Your task to perform on an android device: Open settings Image 0: 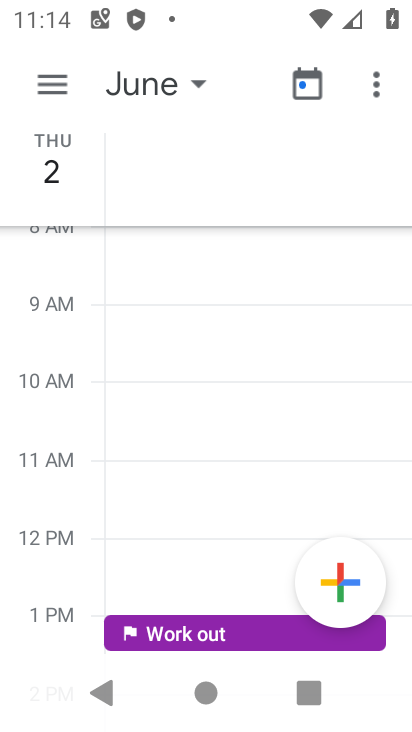
Step 0: press home button
Your task to perform on an android device: Open settings Image 1: 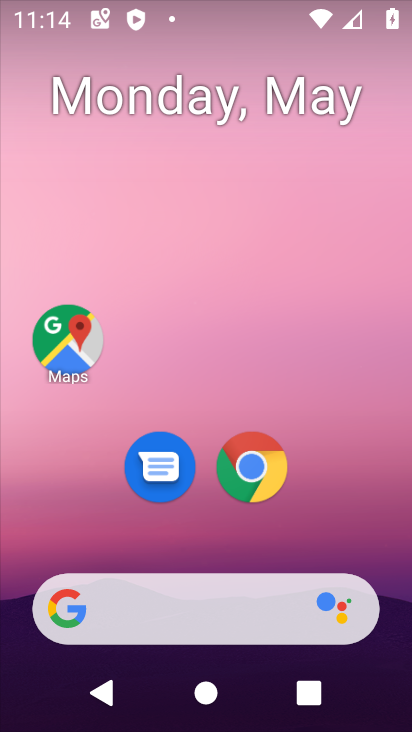
Step 1: drag from (225, 546) to (270, 7)
Your task to perform on an android device: Open settings Image 2: 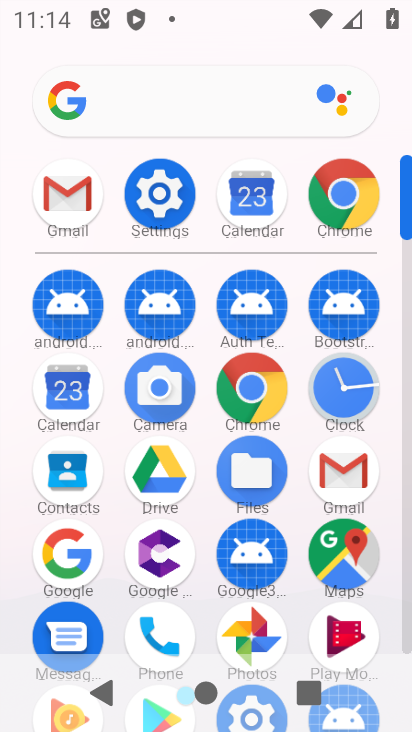
Step 2: click (157, 195)
Your task to perform on an android device: Open settings Image 3: 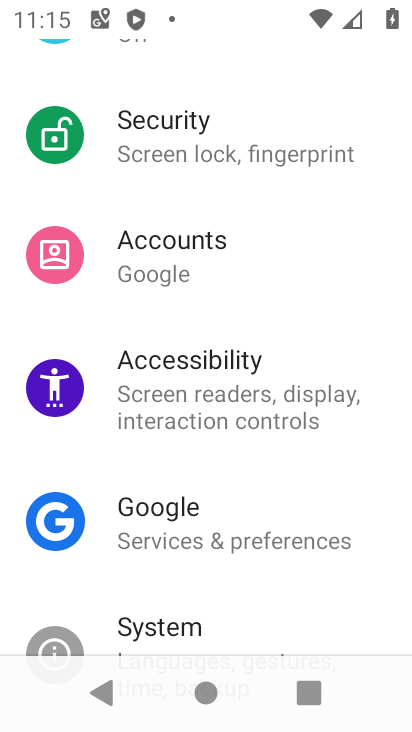
Step 3: task complete